Your task to perform on an android device: allow notifications from all sites in the chrome app Image 0: 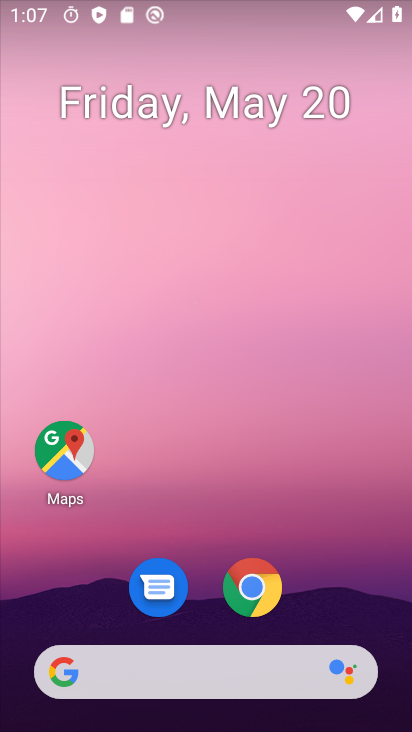
Step 0: click (257, 577)
Your task to perform on an android device: allow notifications from all sites in the chrome app Image 1: 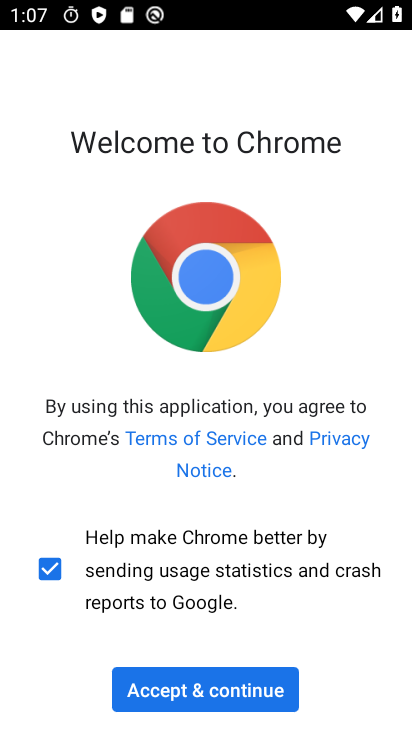
Step 1: click (266, 684)
Your task to perform on an android device: allow notifications from all sites in the chrome app Image 2: 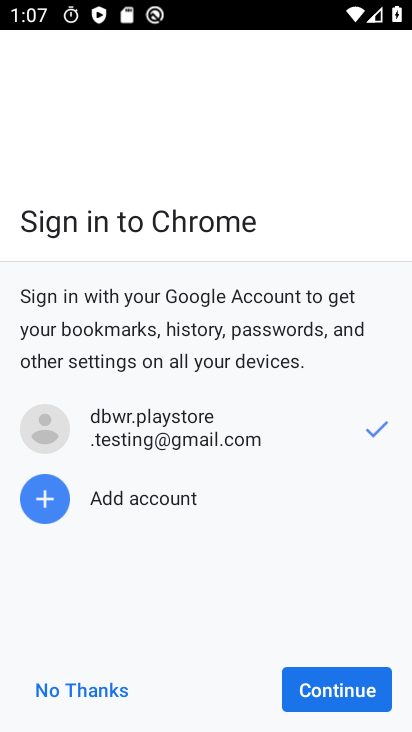
Step 2: click (342, 687)
Your task to perform on an android device: allow notifications from all sites in the chrome app Image 3: 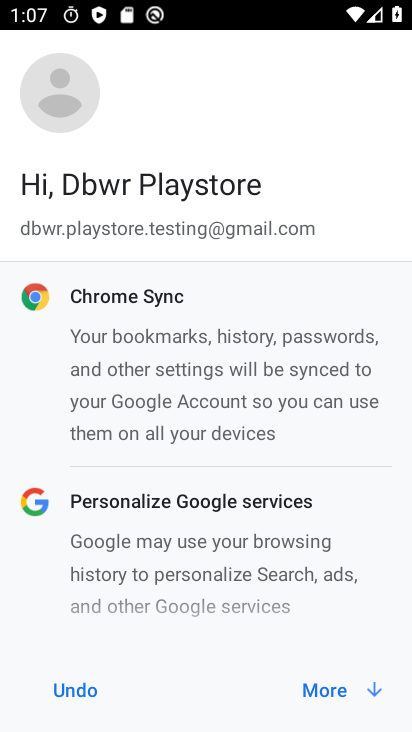
Step 3: click (342, 680)
Your task to perform on an android device: allow notifications from all sites in the chrome app Image 4: 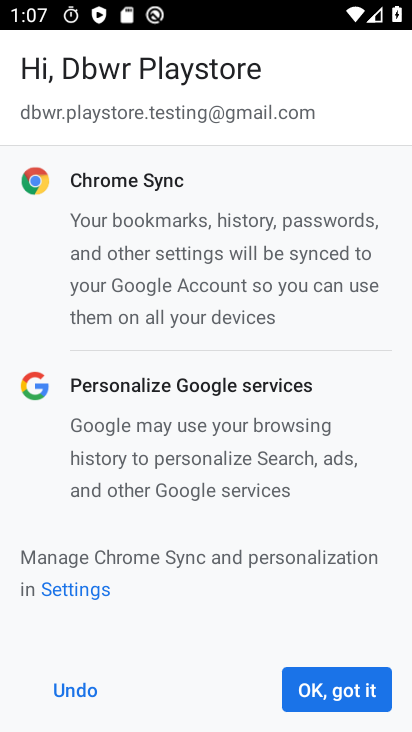
Step 4: click (345, 689)
Your task to perform on an android device: allow notifications from all sites in the chrome app Image 5: 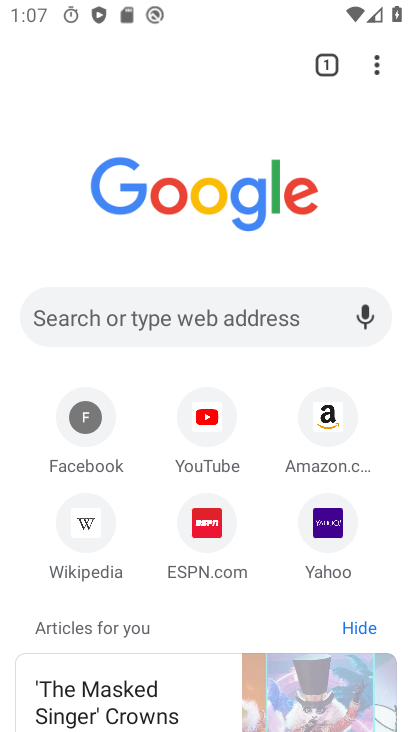
Step 5: click (373, 61)
Your task to perform on an android device: allow notifications from all sites in the chrome app Image 6: 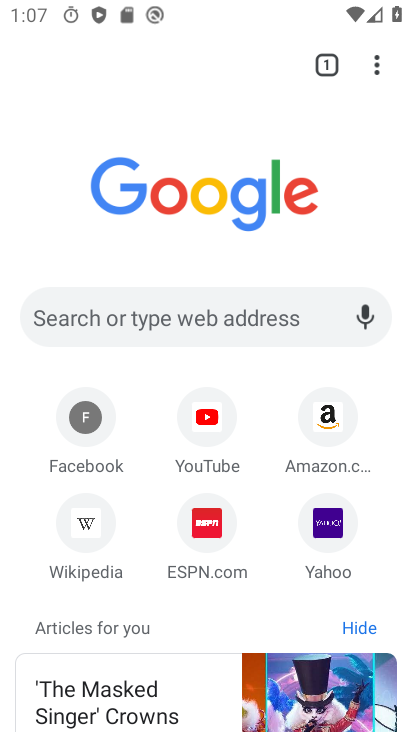
Step 6: drag from (381, 64) to (209, 564)
Your task to perform on an android device: allow notifications from all sites in the chrome app Image 7: 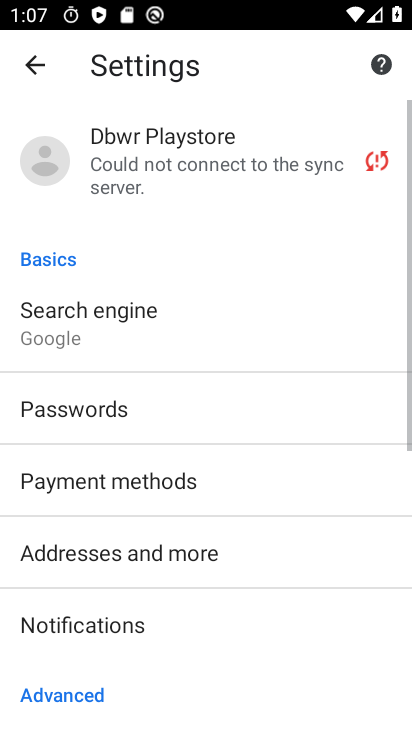
Step 7: drag from (210, 549) to (233, 287)
Your task to perform on an android device: allow notifications from all sites in the chrome app Image 8: 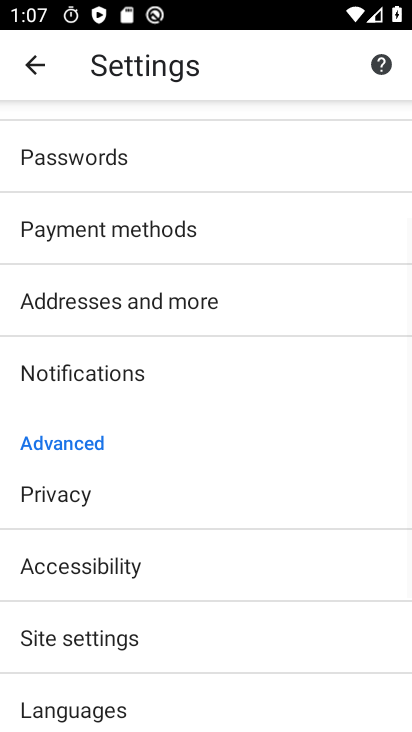
Step 8: click (107, 383)
Your task to perform on an android device: allow notifications from all sites in the chrome app Image 9: 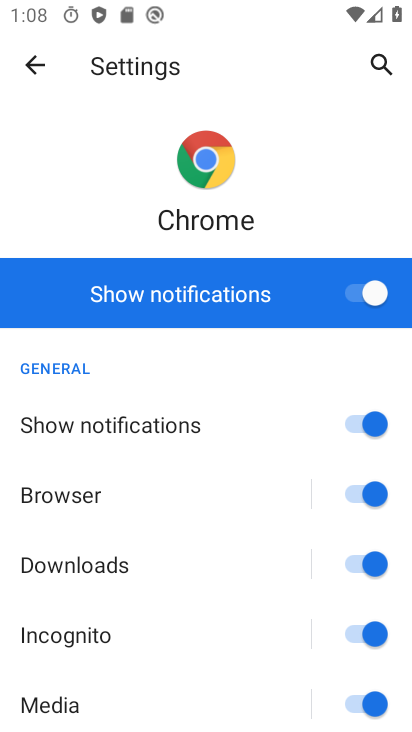
Step 9: task complete